Your task to perform on an android device: toggle airplane mode Image 0: 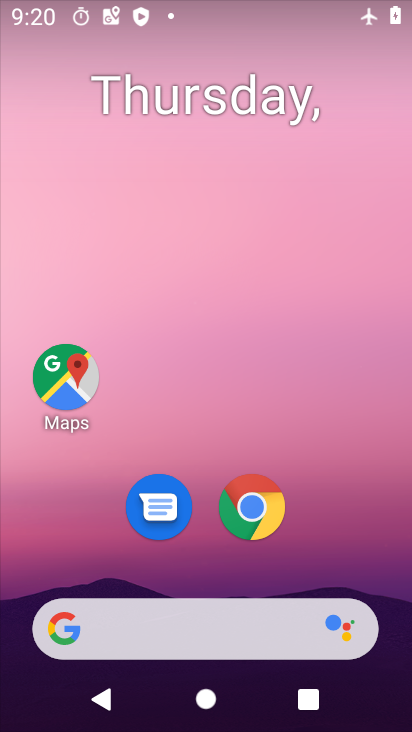
Step 0: drag from (281, 570) to (375, 8)
Your task to perform on an android device: toggle airplane mode Image 1: 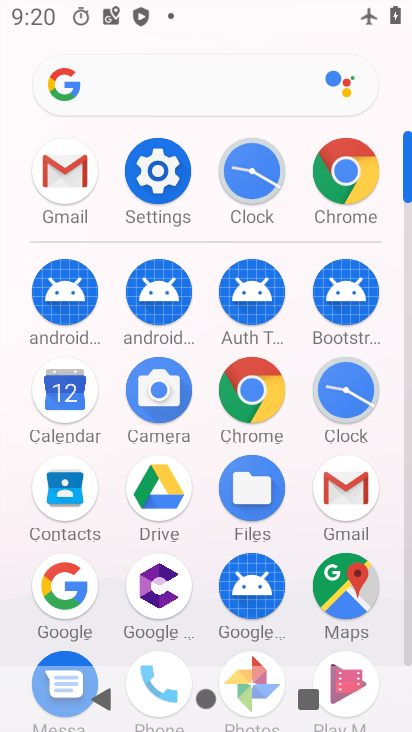
Step 1: click (162, 188)
Your task to perform on an android device: toggle airplane mode Image 2: 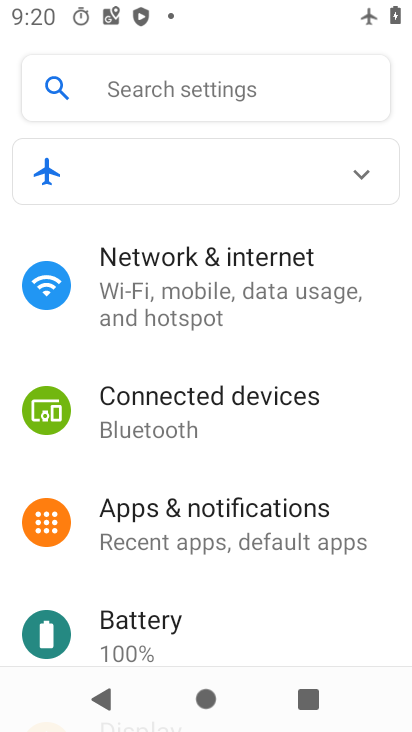
Step 2: click (218, 323)
Your task to perform on an android device: toggle airplane mode Image 3: 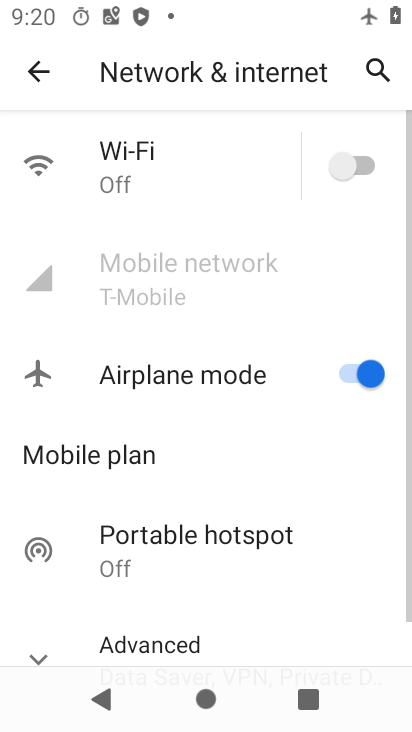
Step 3: click (354, 375)
Your task to perform on an android device: toggle airplane mode Image 4: 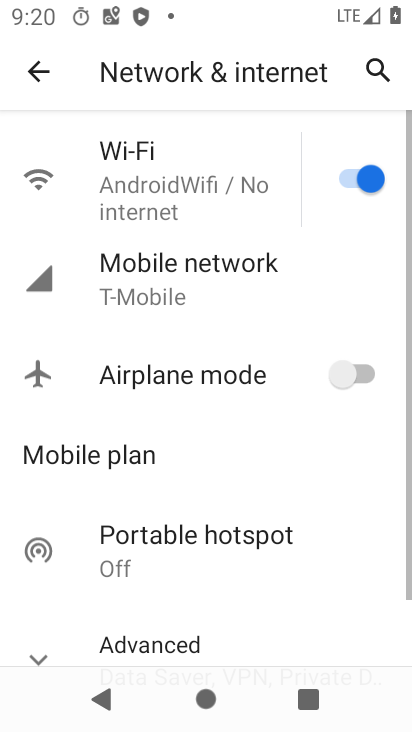
Step 4: task complete